Your task to perform on an android device: turn on bluetooth scan Image 0: 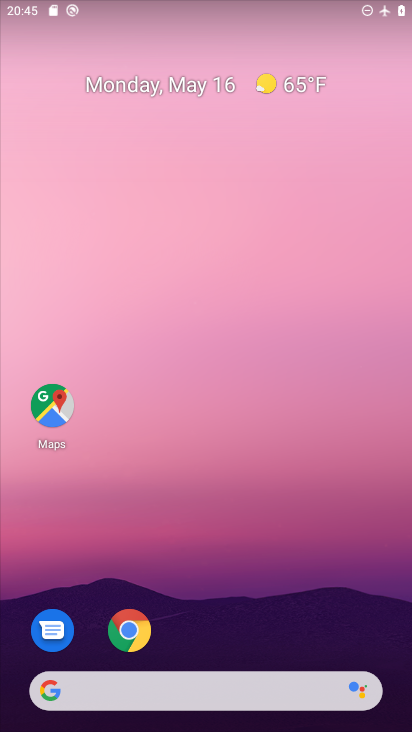
Step 0: drag from (183, 647) to (254, 214)
Your task to perform on an android device: turn on bluetooth scan Image 1: 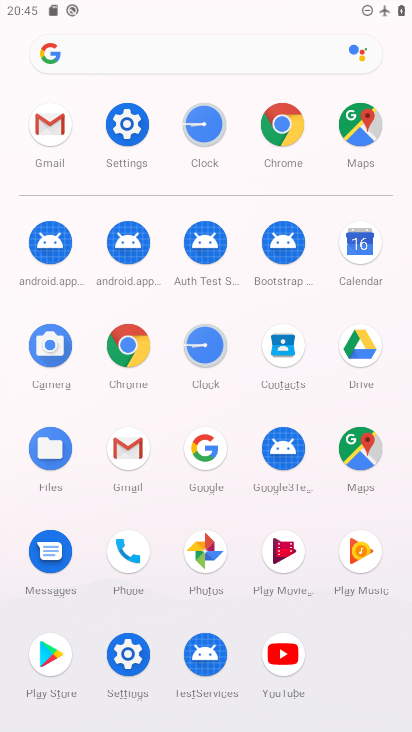
Step 1: click (130, 131)
Your task to perform on an android device: turn on bluetooth scan Image 2: 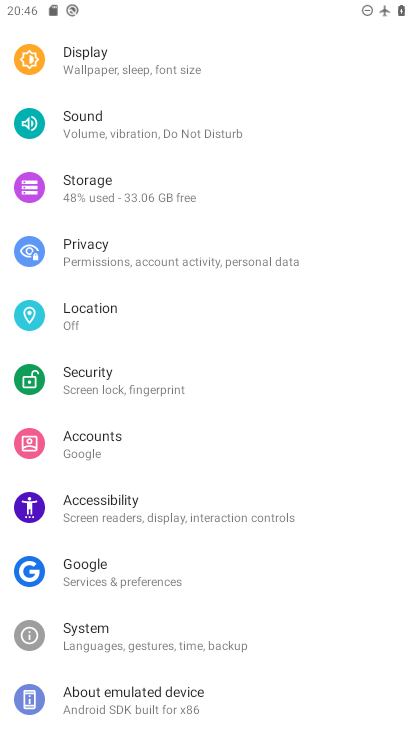
Step 2: drag from (208, 160) to (225, 521)
Your task to perform on an android device: turn on bluetooth scan Image 3: 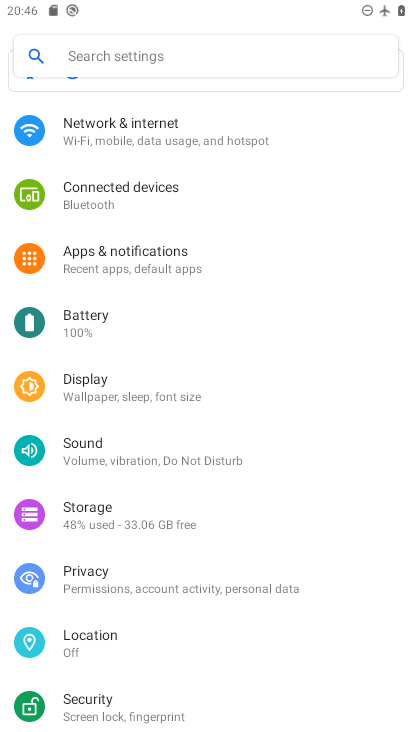
Step 3: click (163, 633)
Your task to perform on an android device: turn on bluetooth scan Image 4: 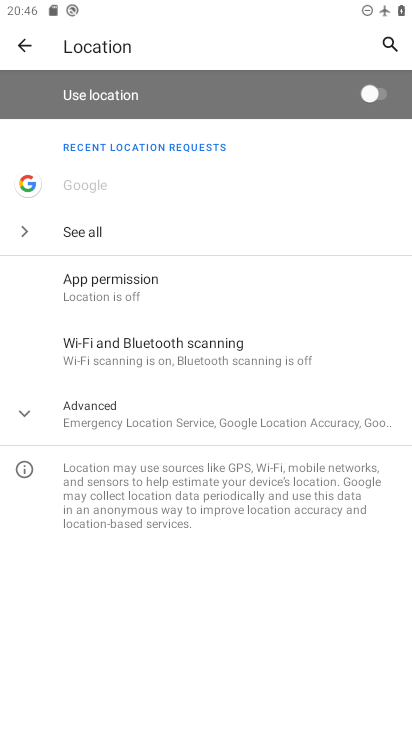
Step 4: click (150, 369)
Your task to perform on an android device: turn on bluetooth scan Image 5: 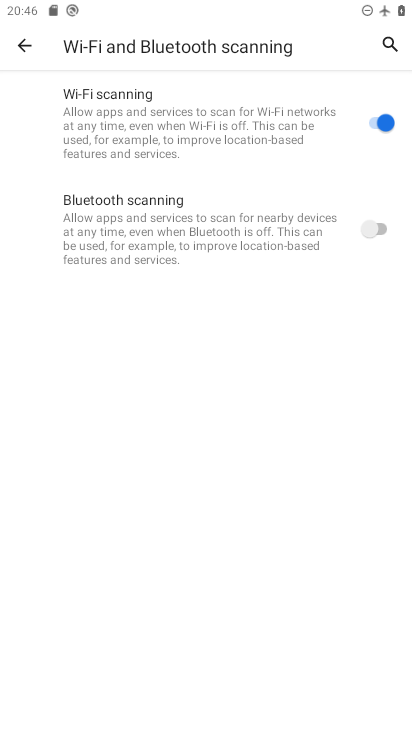
Step 5: click (382, 218)
Your task to perform on an android device: turn on bluetooth scan Image 6: 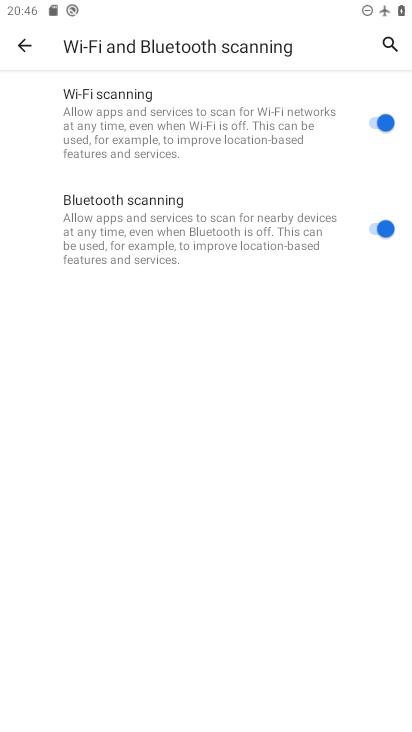
Step 6: task complete